Your task to perform on an android device: change notifications settings Image 0: 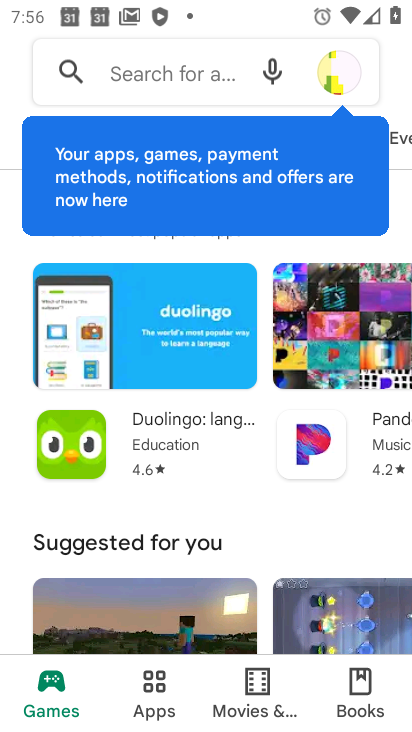
Step 0: press home button
Your task to perform on an android device: change notifications settings Image 1: 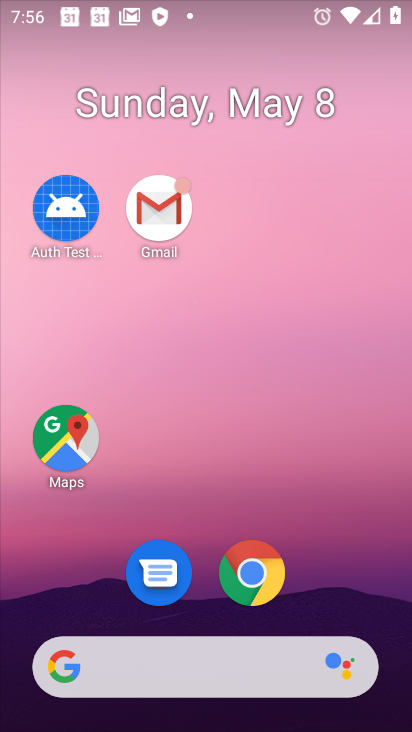
Step 1: drag from (357, 555) to (179, 127)
Your task to perform on an android device: change notifications settings Image 2: 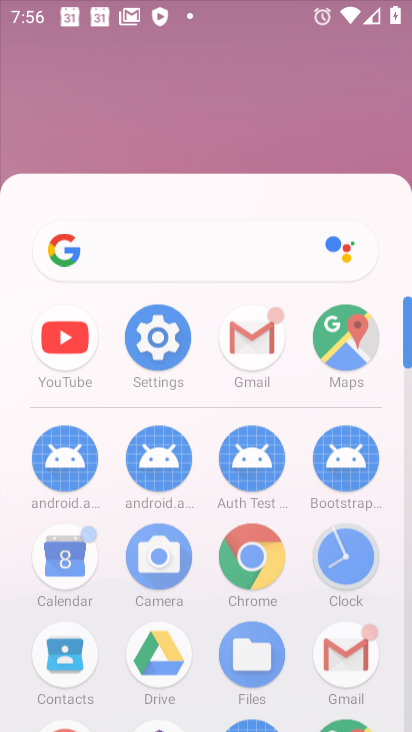
Step 2: drag from (317, 580) to (182, 164)
Your task to perform on an android device: change notifications settings Image 3: 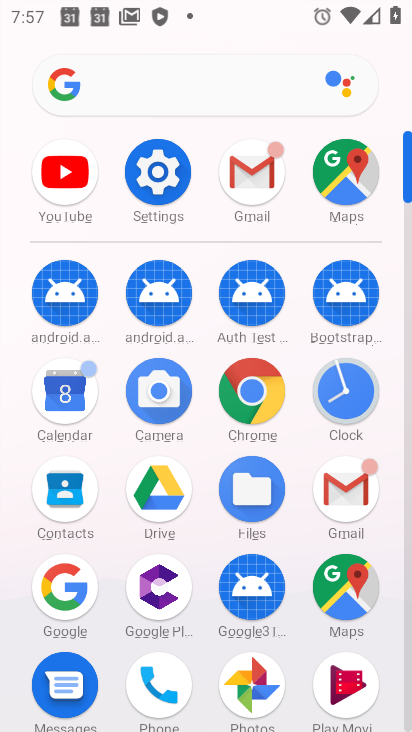
Step 3: click (162, 173)
Your task to perform on an android device: change notifications settings Image 4: 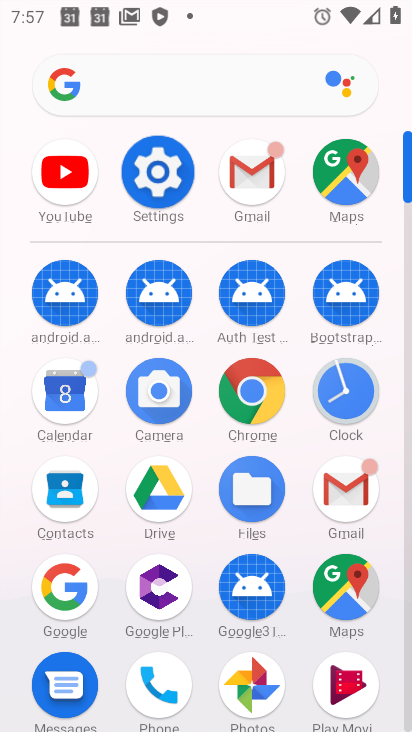
Step 4: click (162, 173)
Your task to perform on an android device: change notifications settings Image 5: 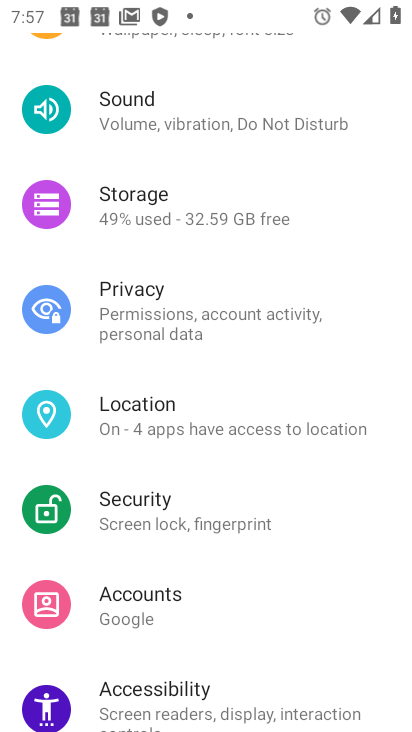
Step 5: drag from (152, 139) to (138, 453)
Your task to perform on an android device: change notifications settings Image 6: 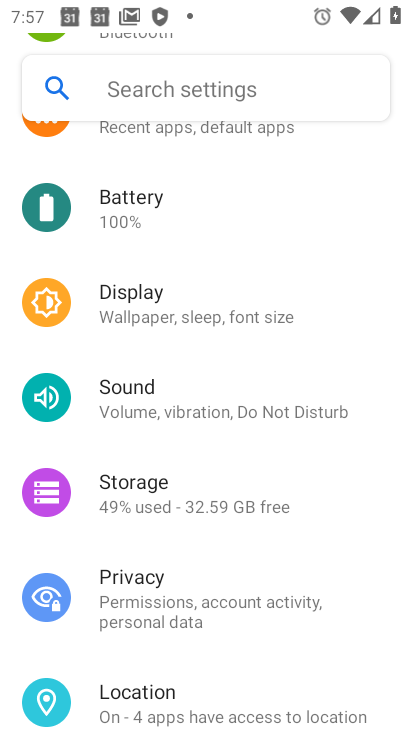
Step 6: drag from (179, 115) to (208, 482)
Your task to perform on an android device: change notifications settings Image 7: 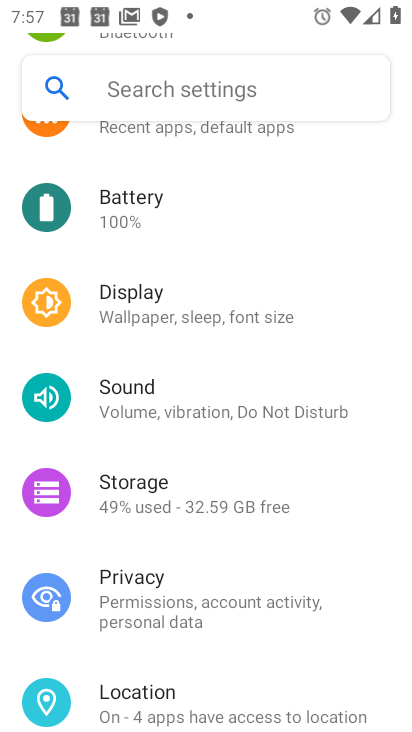
Step 7: click (288, 562)
Your task to perform on an android device: change notifications settings Image 8: 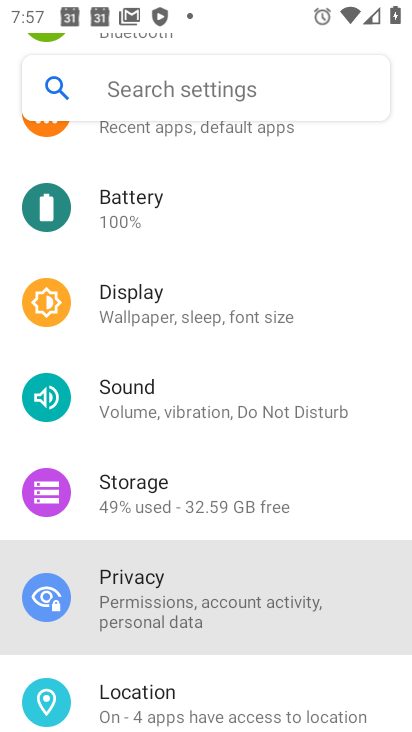
Step 8: drag from (173, 219) to (154, 591)
Your task to perform on an android device: change notifications settings Image 9: 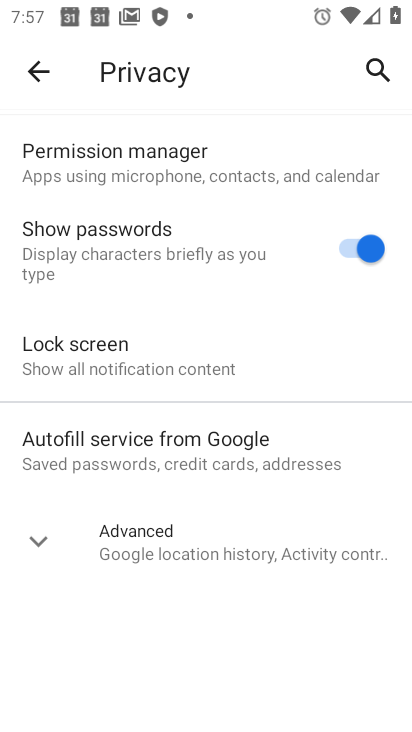
Step 9: drag from (138, 225) to (148, 638)
Your task to perform on an android device: change notifications settings Image 10: 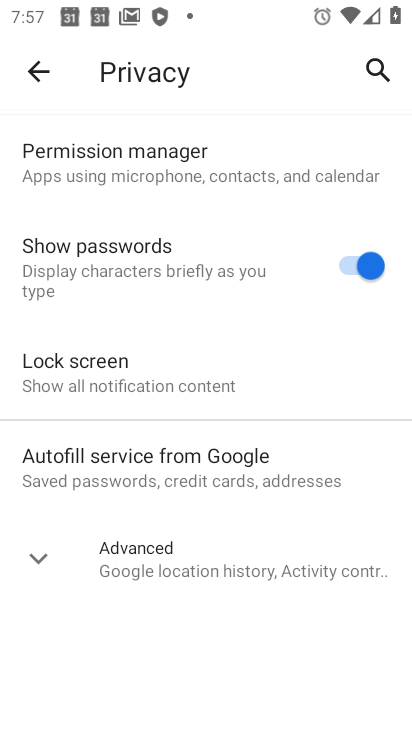
Step 10: click (28, 63)
Your task to perform on an android device: change notifications settings Image 11: 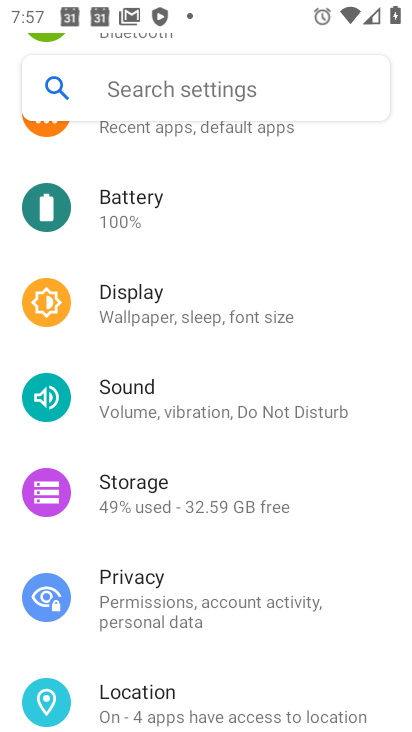
Step 11: drag from (200, 191) to (263, 679)
Your task to perform on an android device: change notifications settings Image 12: 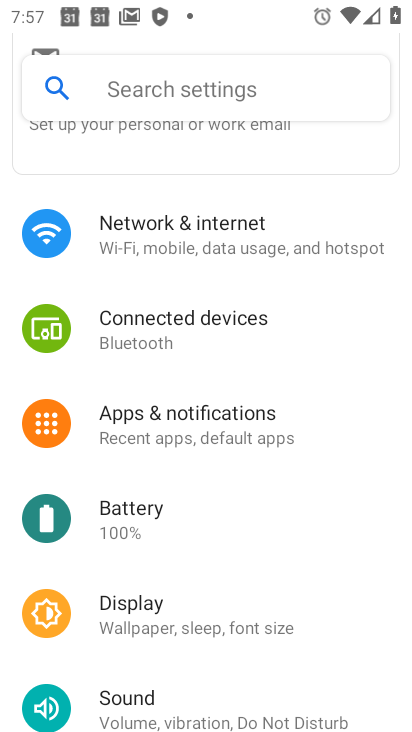
Step 12: drag from (232, 271) to (242, 637)
Your task to perform on an android device: change notifications settings Image 13: 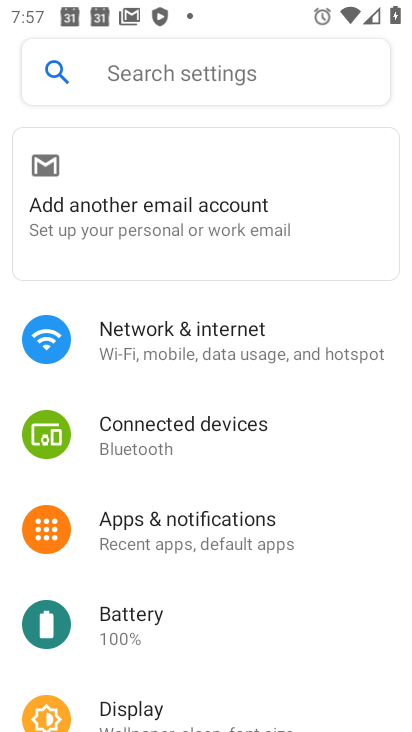
Step 13: click (171, 529)
Your task to perform on an android device: change notifications settings Image 14: 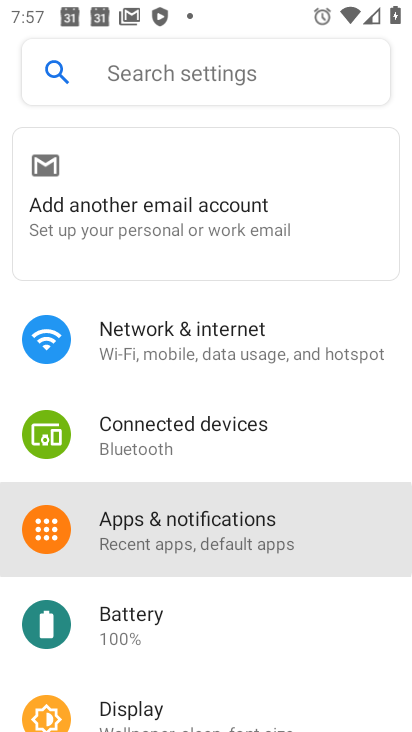
Step 14: click (171, 529)
Your task to perform on an android device: change notifications settings Image 15: 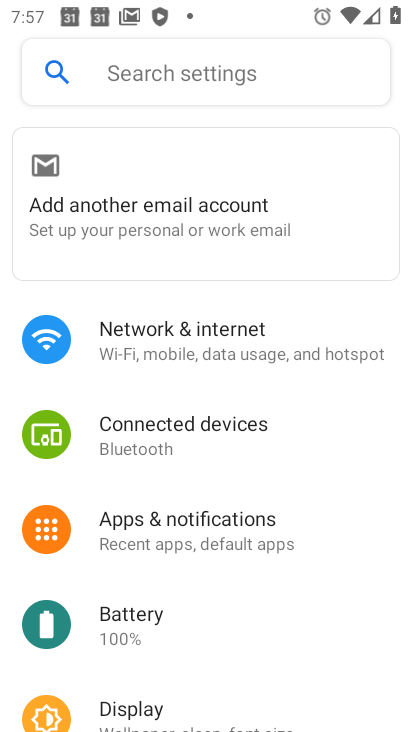
Step 15: click (171, 529)
Your task to perform on an android device: change notifications settings Image 16: 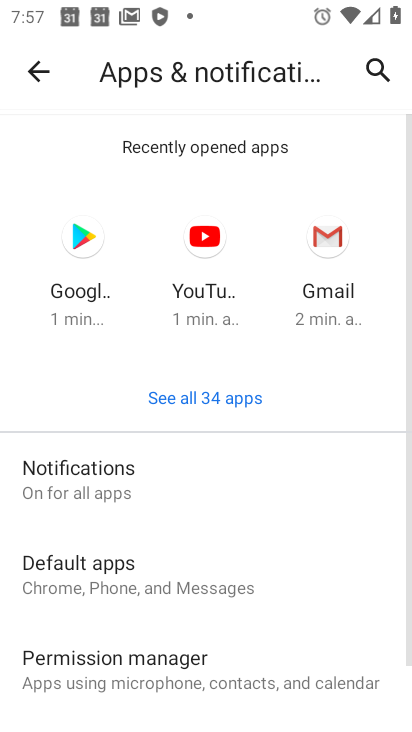
Step 16: click (79, 472)
Your task to perform on an android device: change notifications settings Image 17: 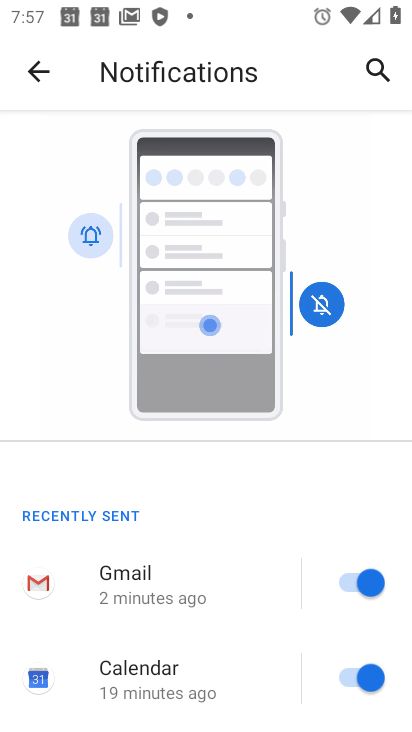
Step 17: drag from (198, 581) to (214, 304)
Your task to perform on an android device: change notifications settings Image 18: 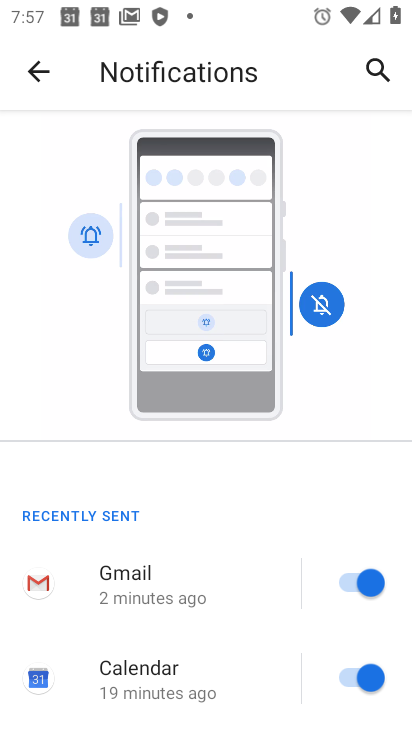
Step 18: drag from (214, 537) to (183, 171)
Your task to perform on an android device: change notifications settings Image 19: 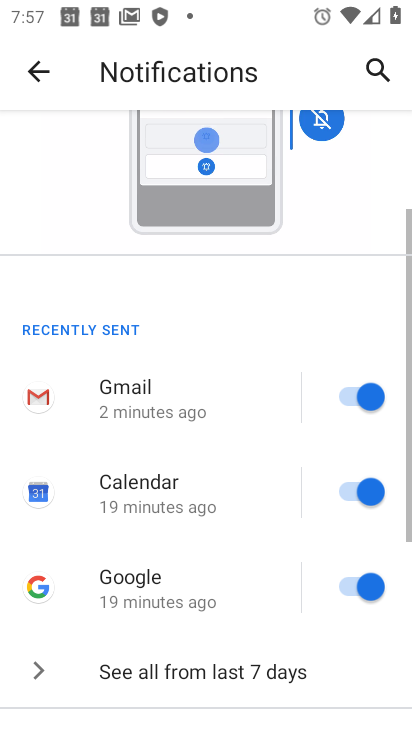
Step 19: drag from (170, 556) to (149, 44)
Your task to perform on an android device: change notifications settings Image 20: 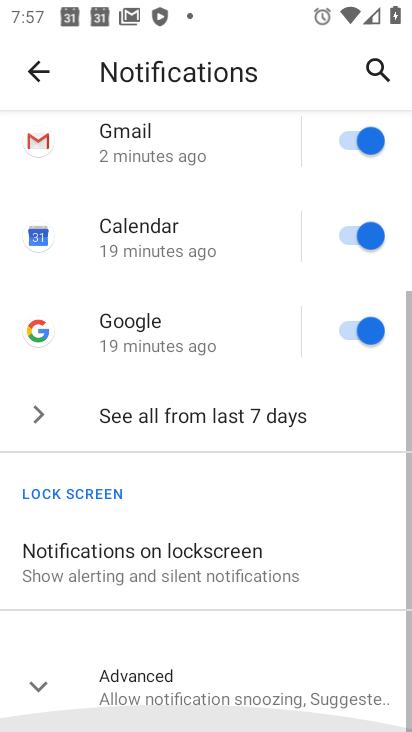
Step 20: drag from (194, 485) to (174, 84)
Your task to perform on an android device: change notifications settings Image 21: 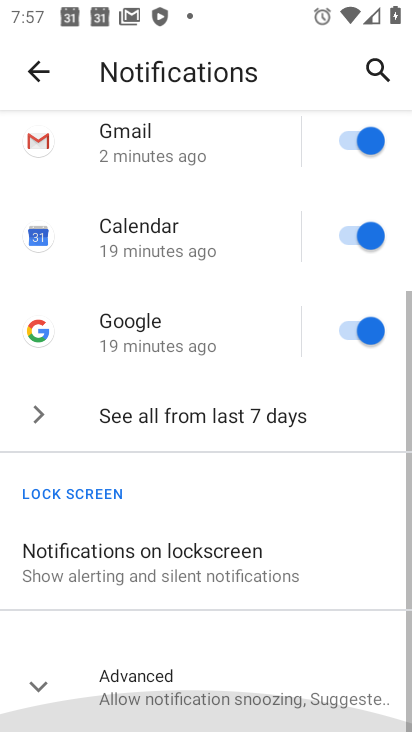
Step 21: drag from (193, 535) to (188, 153)
Your task to perform on an android device: change notifications settings Image 22: 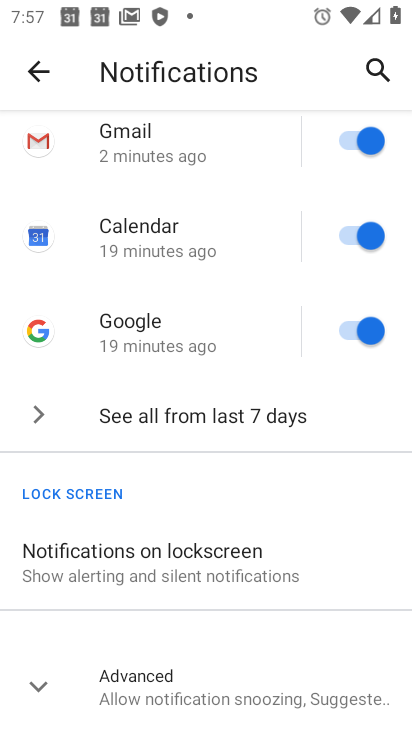
Step 22: click (177, 560)
Your task to perform on an android device: change notifications settings Image 23: 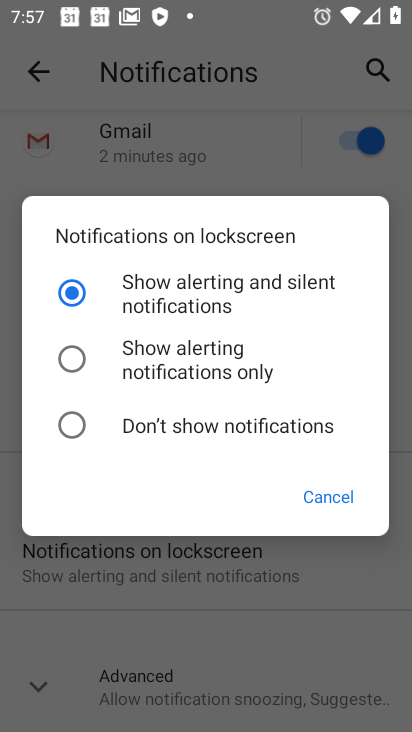
Step 23: click (74, 356)
Your task to perform on an android device: change notifications settings Image 24: 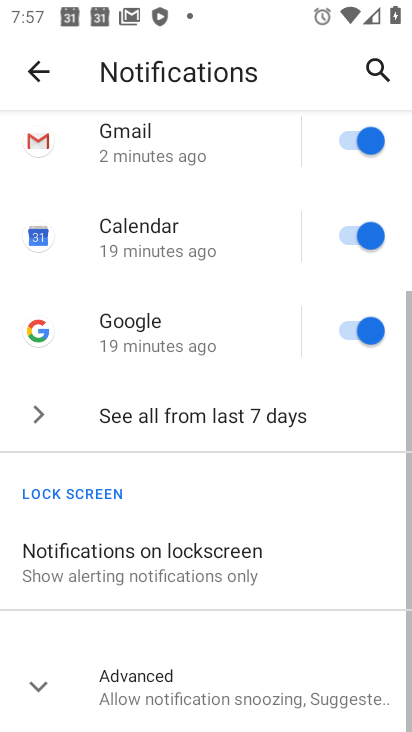
Step 24: click (170, 544)
Your task to perform on an android device: change notifications settings Image 25: 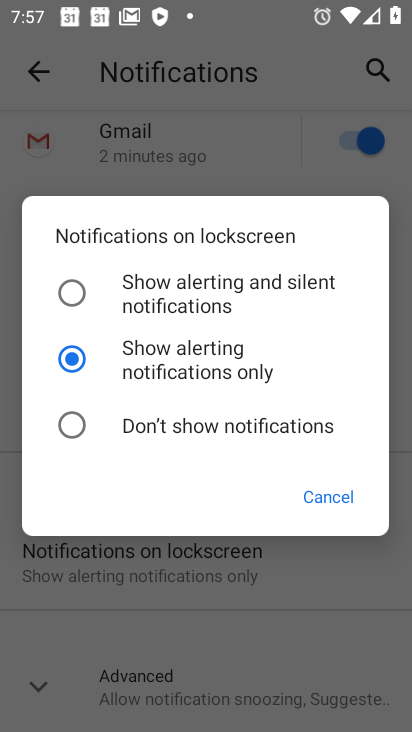
Step 25: click (75, 290)
Your task to perform on an android device: change notifications settings Image 26: 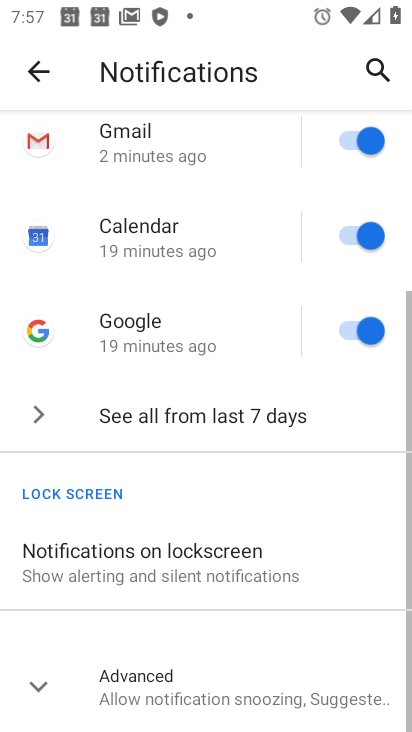
Step 26: drag from (199, 660) to (122, 95)
Your task to perform on an android device: change notifications settings Image 27: 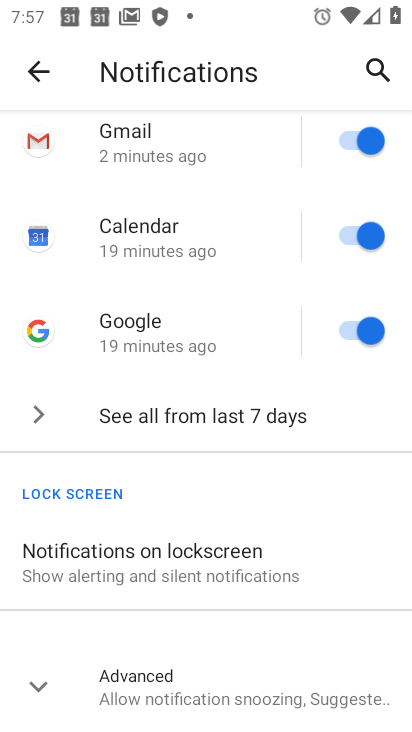
Step 27: click (173, 700)
Your task to perform on an android device: change notifications settings Image 28: 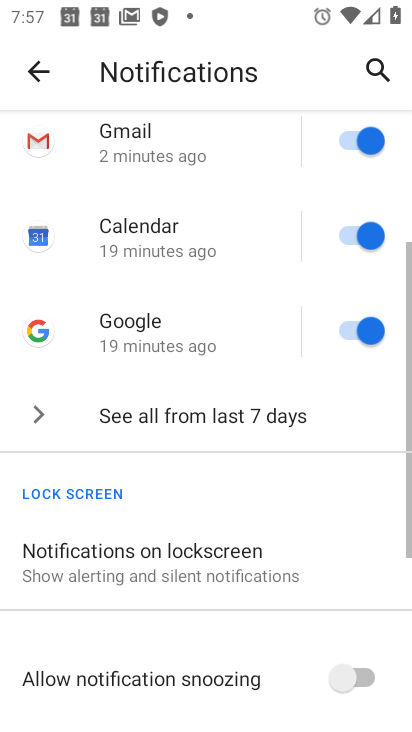
Step 28: drag from (259, 645) to (131, 243)
Your task to perform on an android device: change notifications settings Image 29: 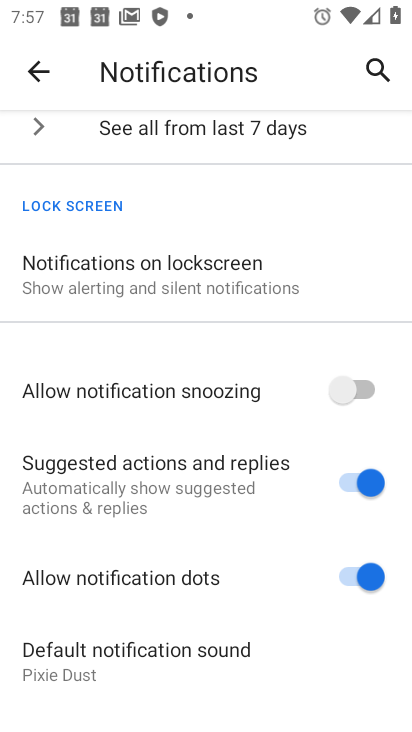
Step 29: click (345, 391)
Your task to perform on an android device: change notifications settings Image 30: 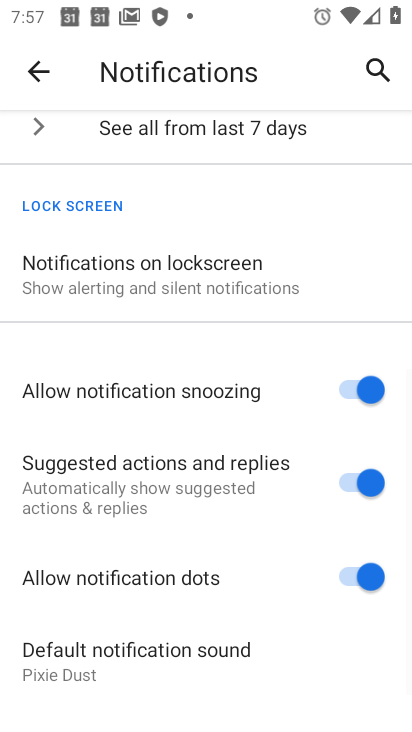
Step 30: click (374, 571)
Your task to perform on an android device: change notifications settings Image 31: 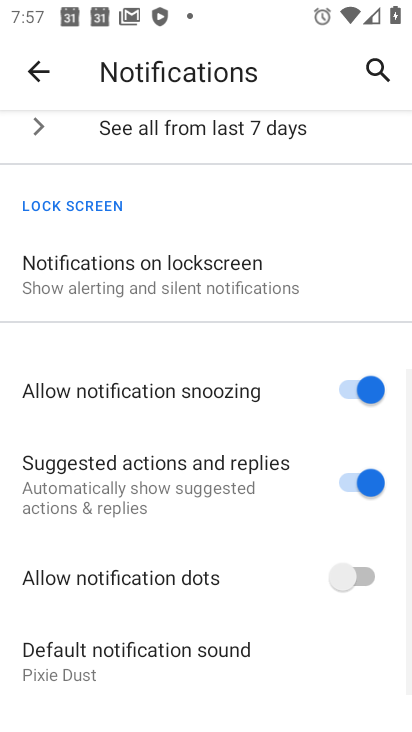
Step 31: task complete